Your task to perform on an android device: Show me popular games on the Play Store Image 0: 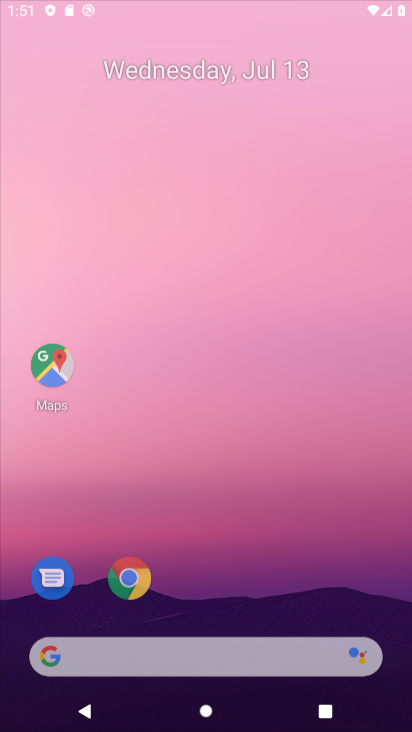
Step 0: click (270, 84)
Your task to perform on an android device: Show me popular games on the Play Store Image 1: 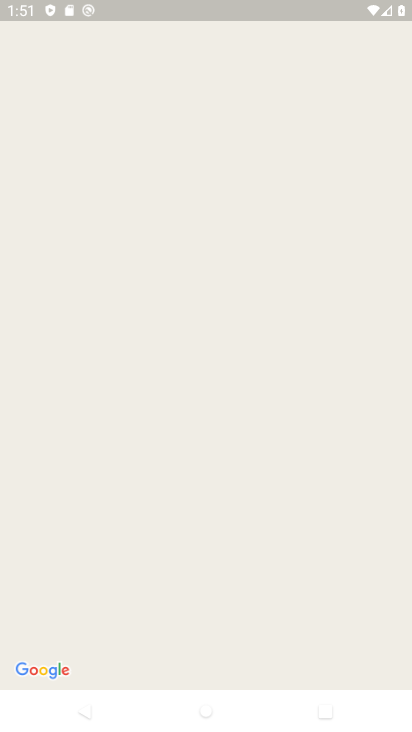
Step 1: press home button
Your task to perform on an android device: Show me popular games on the Play Store Image 2: 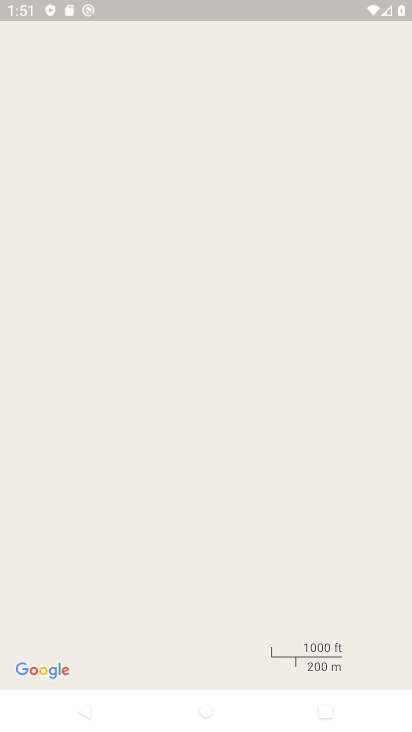
Step 2: drag from (251, 305) to (321, 30)
Your task to perform on an android device: Show me popular games on the Play Store Image 3: 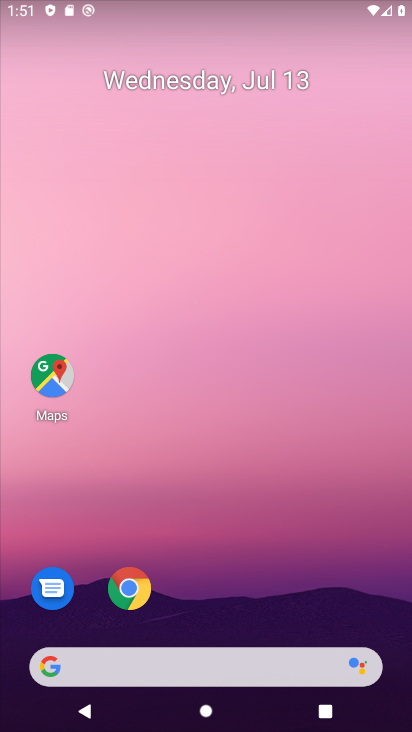
Step 3: drag from (191, 593) to (265, 144)
Your task to perform on an android device: Show me popular games on the Play Store Image 4: 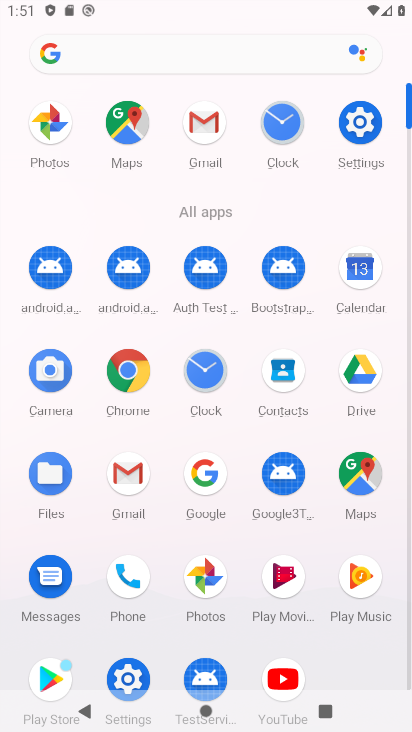
Step 4: click (52, 666)
Your task to perform on an android device: Show me popular games on the Play Store Image 5: 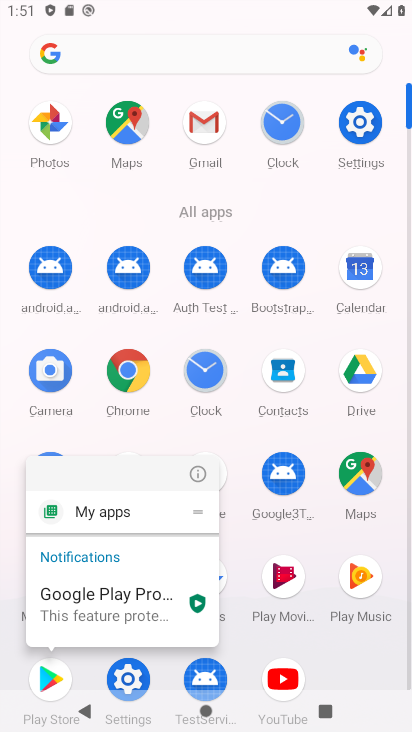
Step 5: click (191, 476)
Your task to perform on an android device: Show me popular games on the Play Store Image 6: 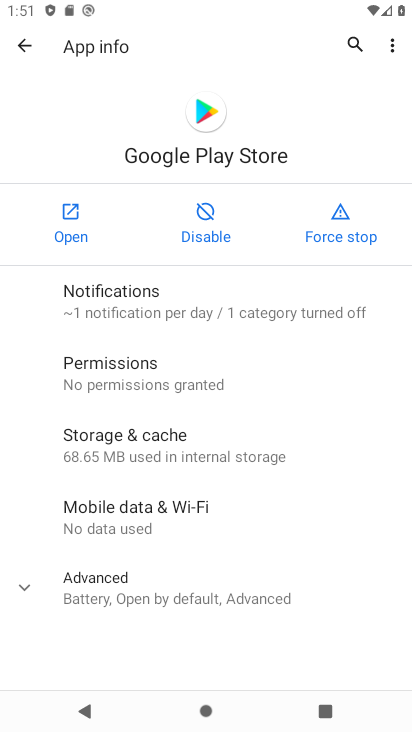
Step 6: click (56, 223)
Your task to perform on an android device: Show me popular games on the Play Store Image 7: 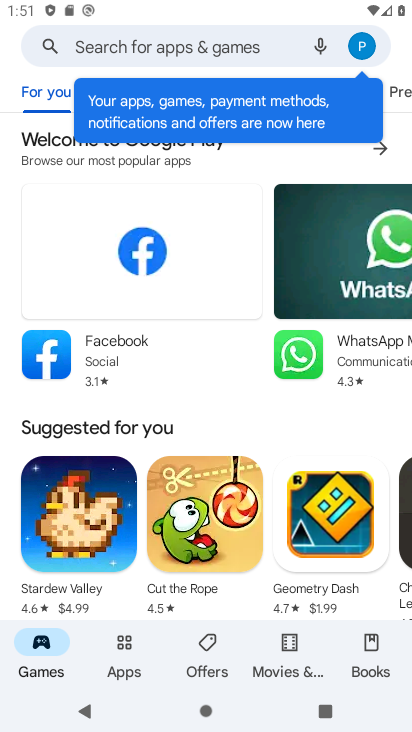
Step 7: drag from (217, 216) to (279, 540)
Your task to perform on an android device: Show me popular games on the Play Store Image 8: 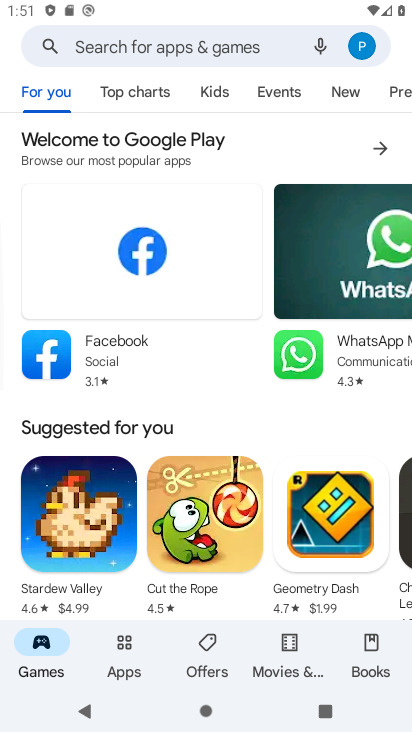
Step 8: drag from (254, 446) to (328, 129)
Your task to perform on an android device: Show me popular games on the Play Store Image 9: 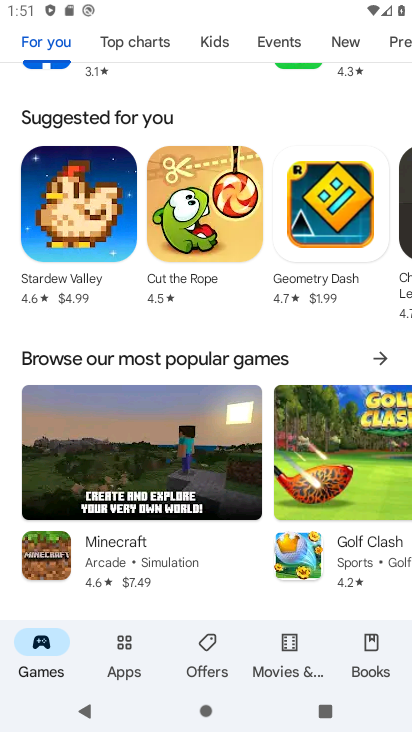
Step 9: drag from (182, 527) to (212, 269)
Your task to perform on an android device: Show me popular games on the Play Store Image 10: 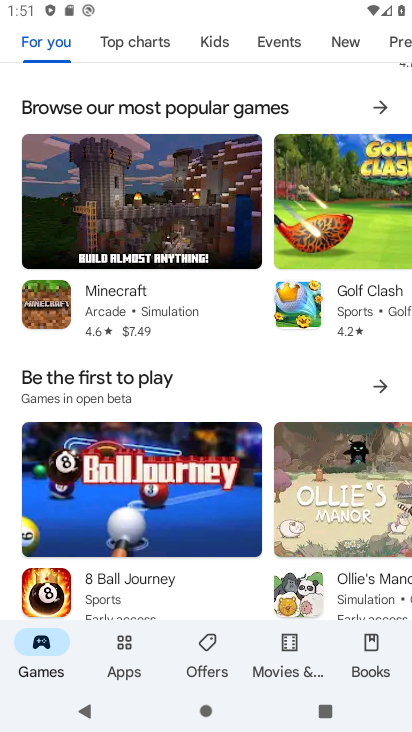
Step 10: click (377, 105)
Your task to perform on an android device: Show me popular games on the Play Store Image 11: 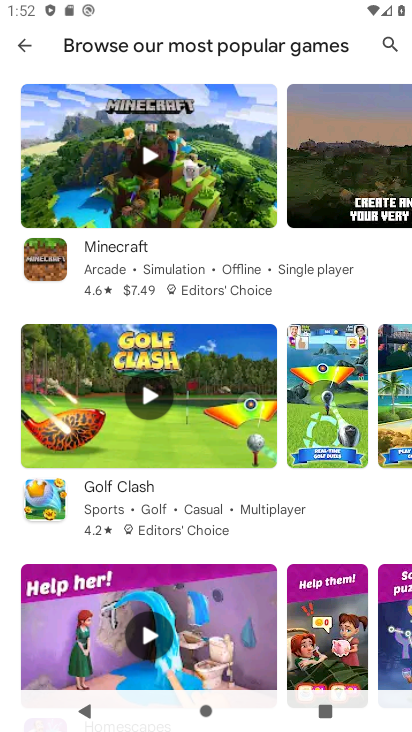
Step 11: task complete